Your task to perform on an android device: What's the weather going to be this weekend? Image 0: 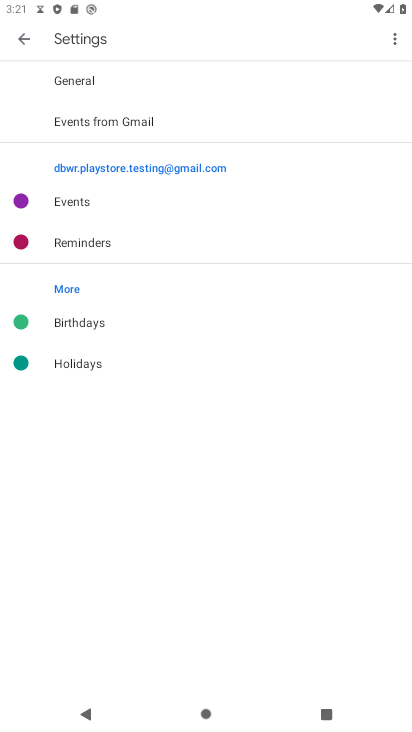
Step 0: press home button
Your task to perform on an android device: What's the weather going to be this weekend? Image 1: 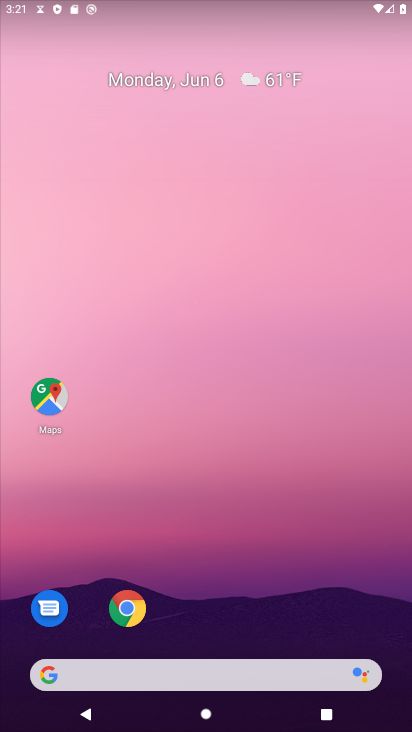
Step 1: click (185, 669)
Your task to perform on an android device: What's the weather going to be this weekend? Image 2: 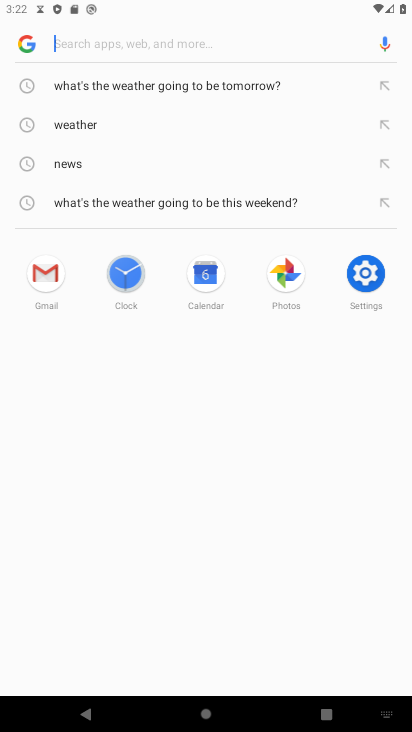
Step 2: type "what's the weather going to be this weekend"
Your task to perform on an android device: What's the weather going to be this weekend? Image 3: 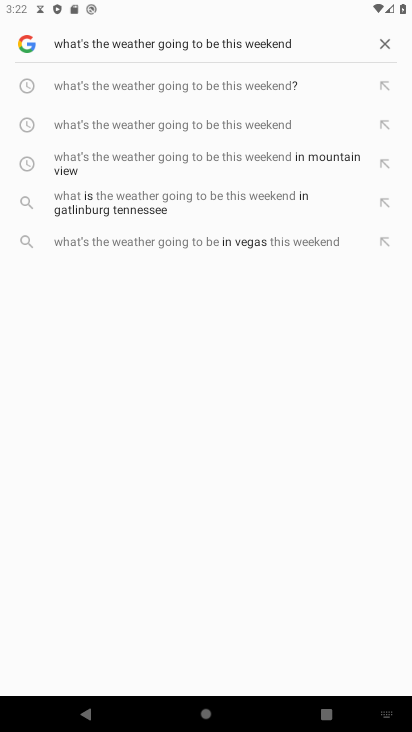
Step 3: click (237, 82)
Your task to perform on an android device: What's the weather going to be this weekend? Image 4: 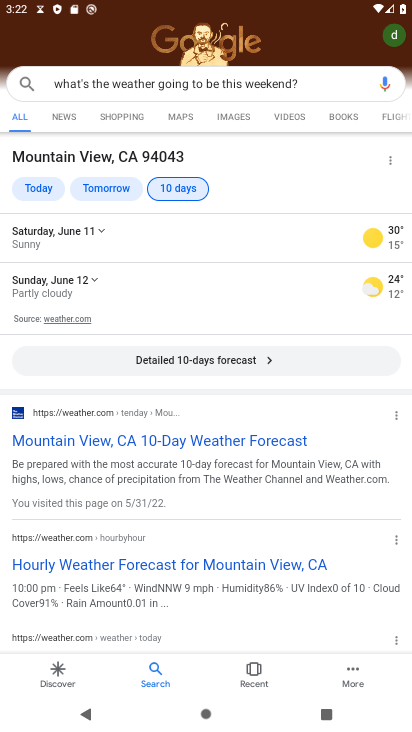
Step 4: task complete